Your task to perform on an android device: manage bookmarks in the chrome app Image 0: 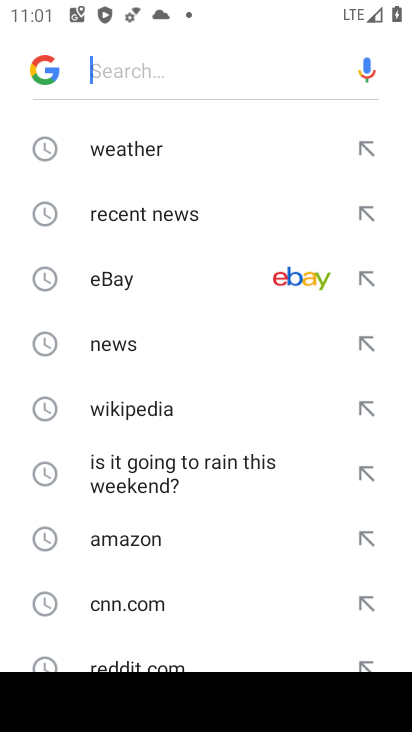
Step 0: press home button
Your task to perform on an android device: manage bookmarks in the chrome app Image 1: 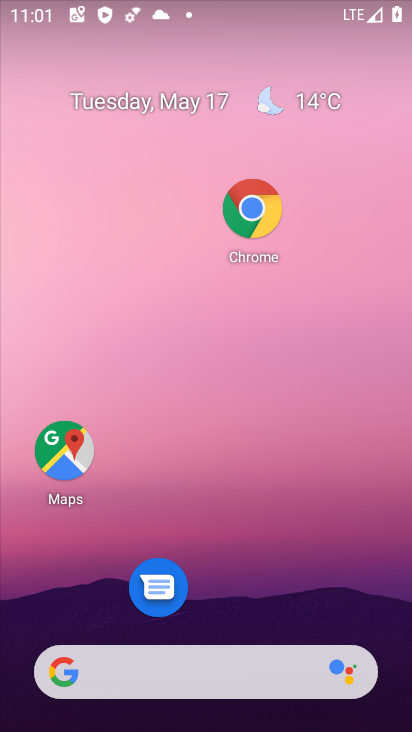
Step 1: click (255, 209)
Your task to perform on an android device: manage bookmarks in the chrome app Image 2: 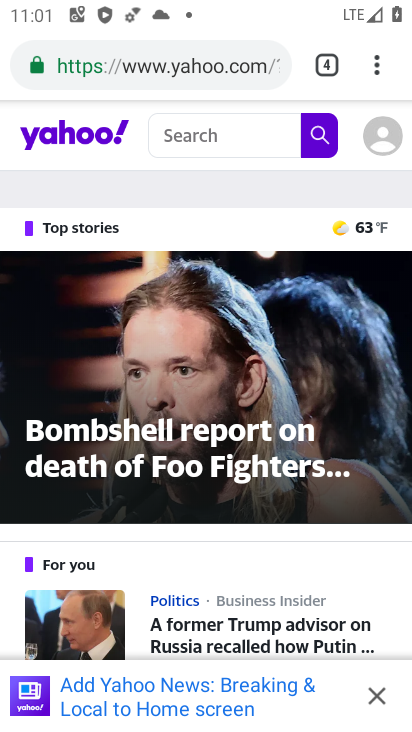
Step 2: click (384, 65)
Your task to perform on an android device: manage bookmarks in the chrome app Image 3: 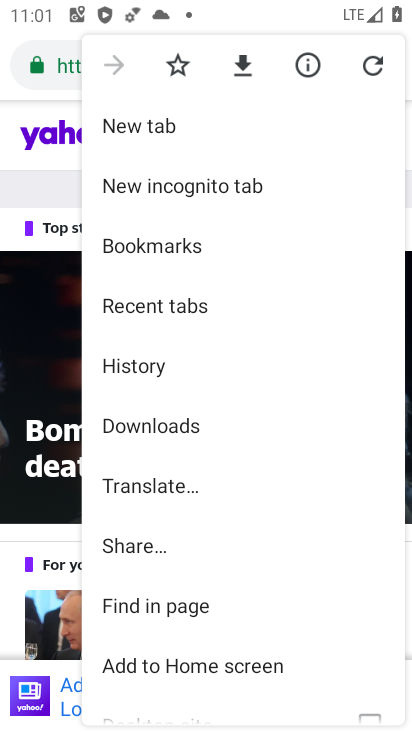
Step 3: click (182, 254)
Your task to perform on an android device: manage bookmarks in the chrome app Image 4: 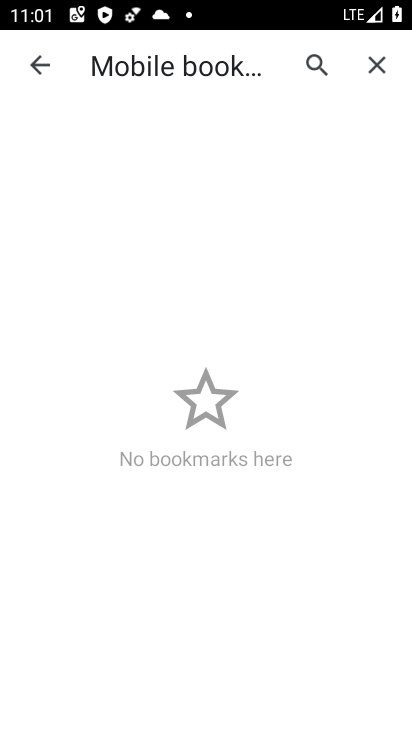
Step 4: task complete